Your task to perform on an android device: Open settings Image 0: 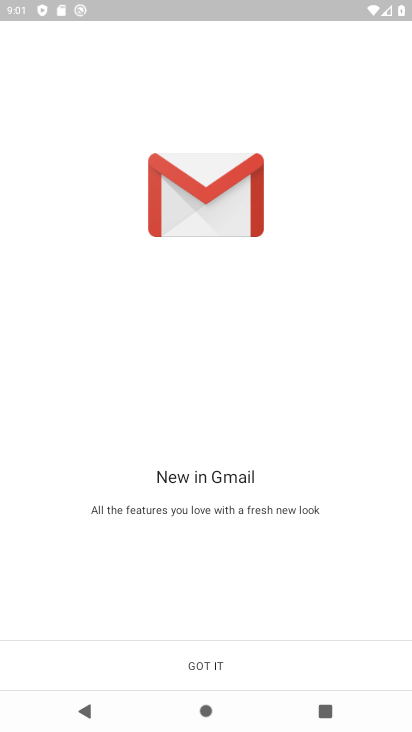
Step 0: drag from (311, 1) to (258, 589)
Your task to perform on an android device: Open settings Image 1: 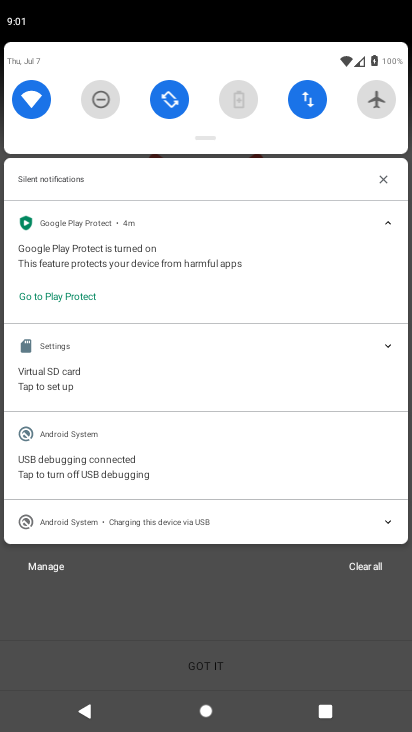
Step 1: drag from (243, 67) to (219, 629)
Your task to perform on an android device: Open settings Image 2: 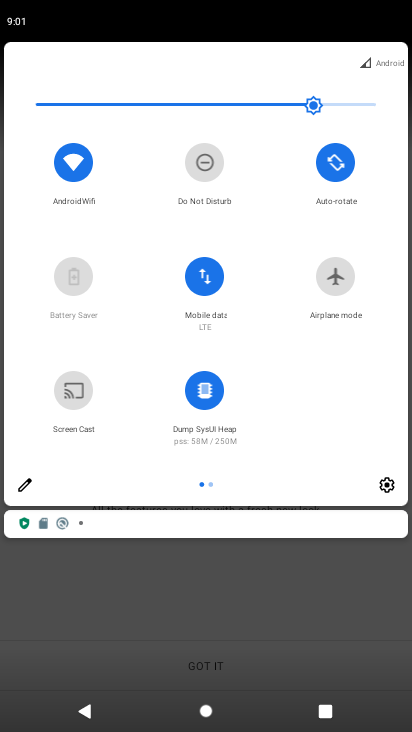
Step 2: click (390, 485)
Your task to perform on an android device: Open settings Image 3: 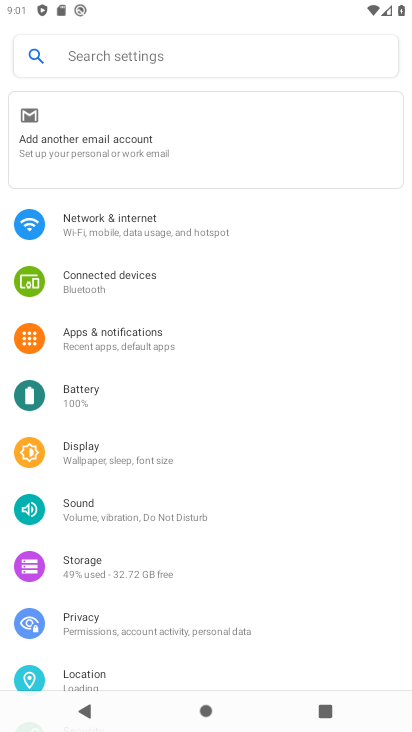
Step 3: task complete